Your task to perform on an android device: turn on location history Image 0: 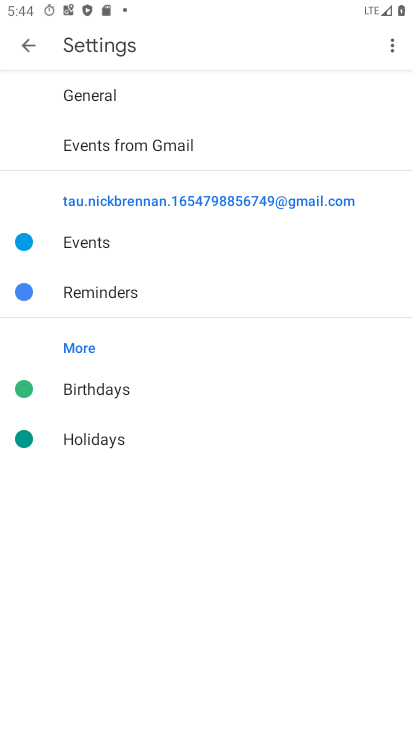
Step 0: press home button
Your task to perform on an android device: turn on location history Image 1: 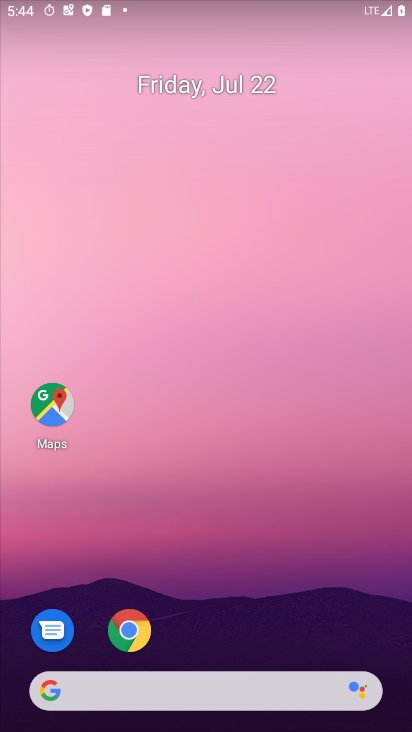
Step 1: drag from (257, 679) to (162, 42)
Your task to perform on an android device: turn on location history Image 2: 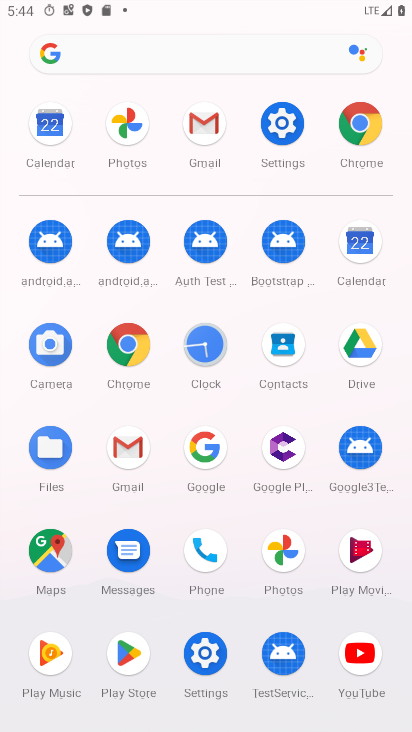
Step 2: click (272, 117)
Your task to perform on an android device: turn on location history Image 3: 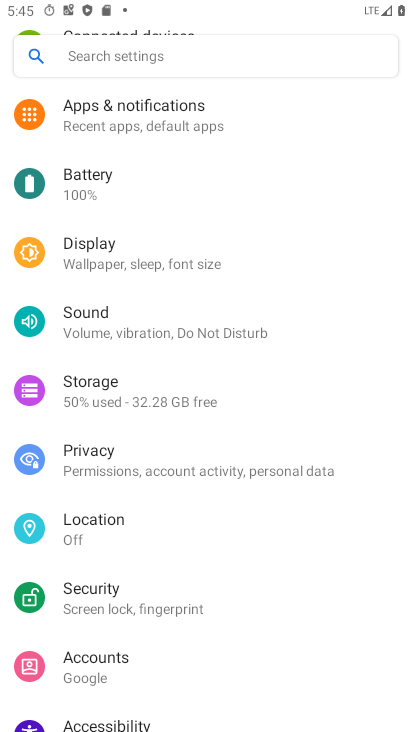
Step 3: click (117, 531)
Your task to perform on an android device: turn on location history Image 4: 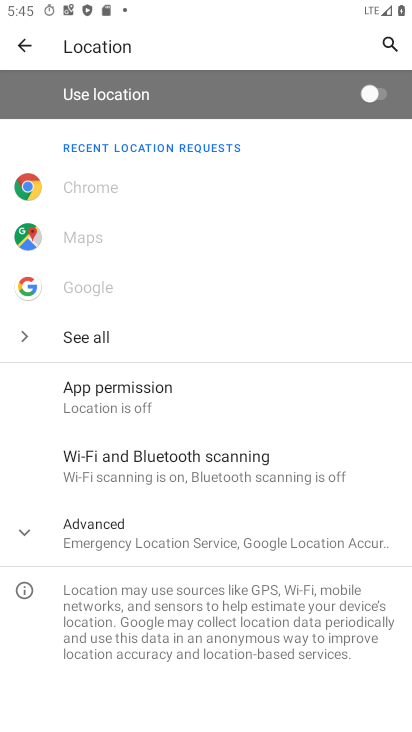
Step 4: click (377, 90)
Your task to perform on an android device: turn on location history Image 5: 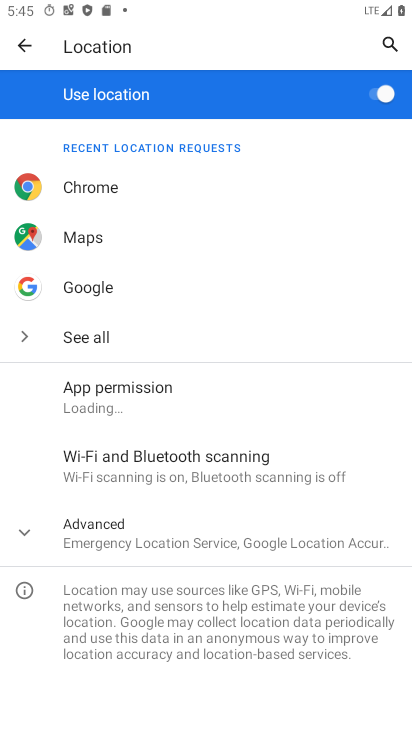
Step 5: click (195, 531)
Your task to perform on an android device: turn on location history Image 6: 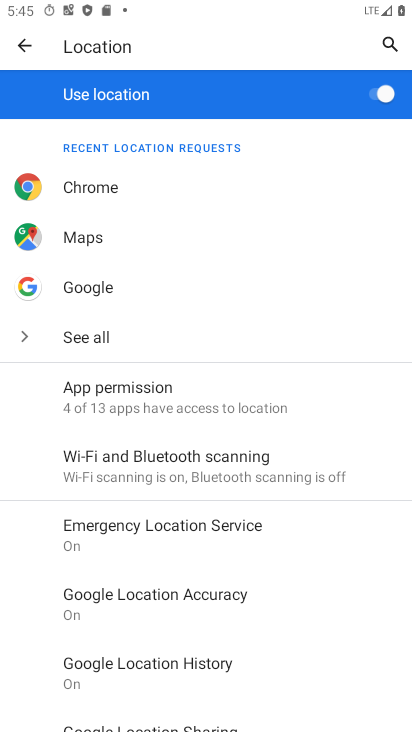
Step 6: click (152, 659)
Your task to perform on an android device: turn on location history Image 7: 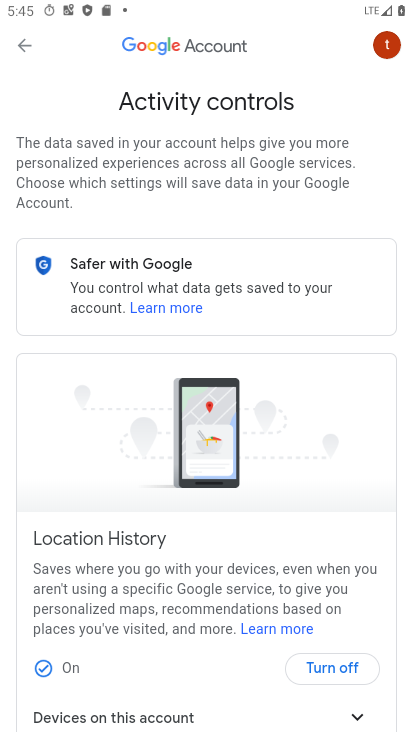
Step 7: task complete